Your task to perform on an android device: visit the assistant section in the google photos Image 0: 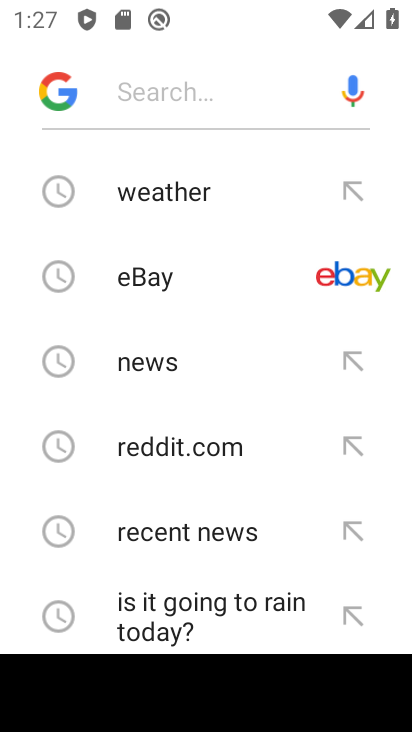
Step 0: press home button
Your task to perform on an android device: visit the assistant section in the google photos Image 1: 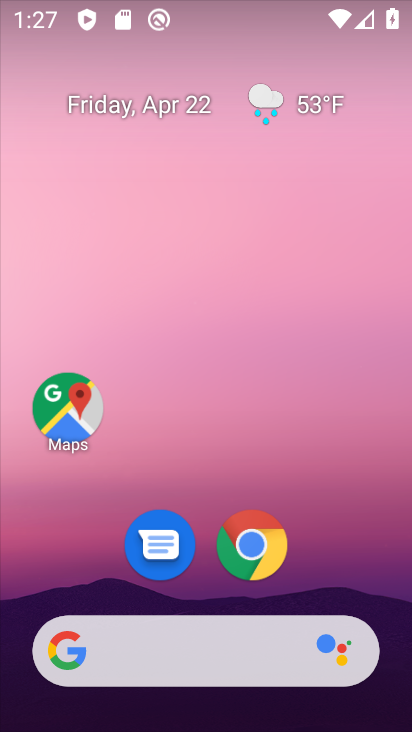
Step 1: drag from (345, 530) to (323, 110)
Your task to perform on an android device: visit the assistant section in the google photos Image 2: 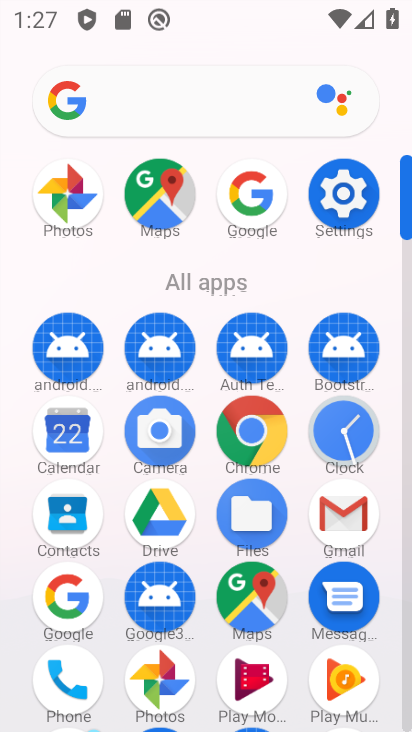
Step 2: click (67, 192)
Your task to perform on an android device: visit the assistant section in the google photos Image 3: 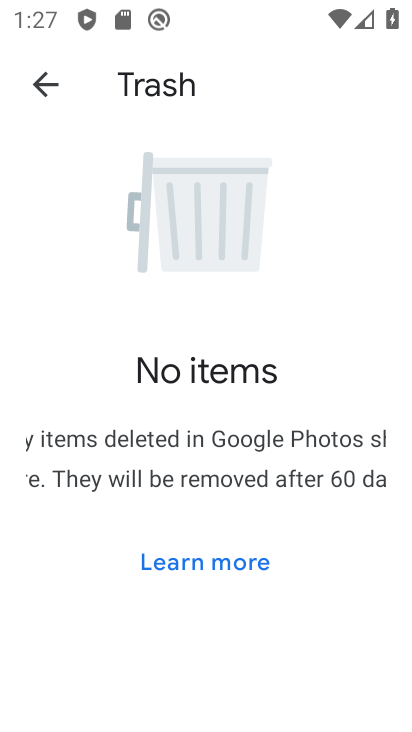
Step 3: press back button
Your task to perform on an android device: visit the assistant section in the google photos Image 4: 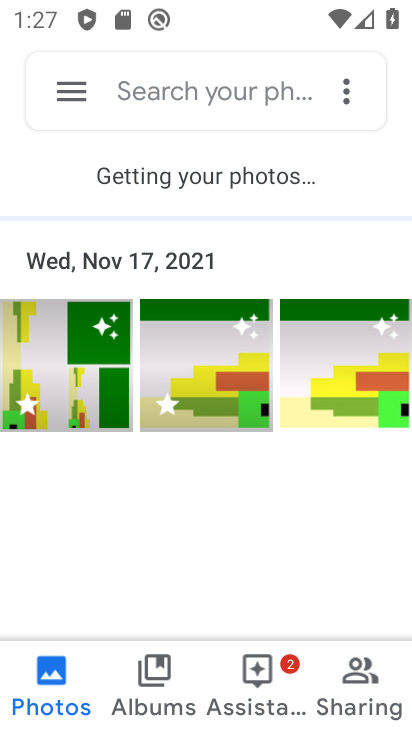
Step 4: click (255, 675)
Your task to perform on an android device: visit the assistant section in the google photos Image 5: 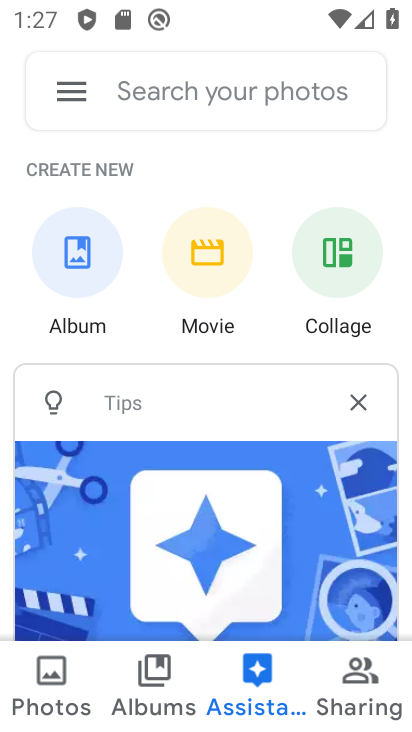
Step 5: task complete